Your task to perform on an android device: Open Google Chrome and open the bookmarks view Image 0: 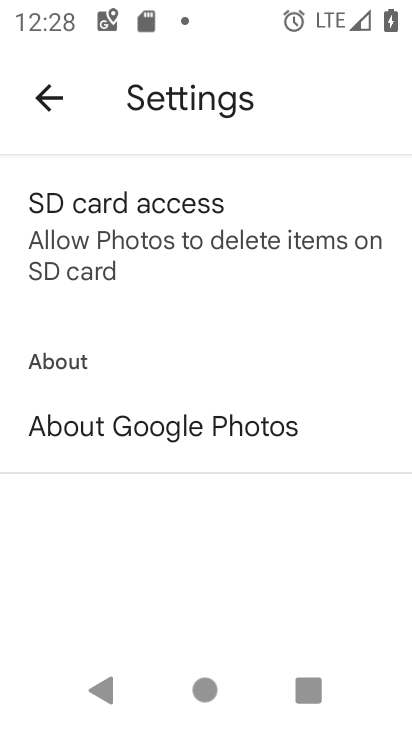
Step 0: click (397, 454)
Your task to perform on an android device: Open Google Chrome and open the bookmarks view Image 1: 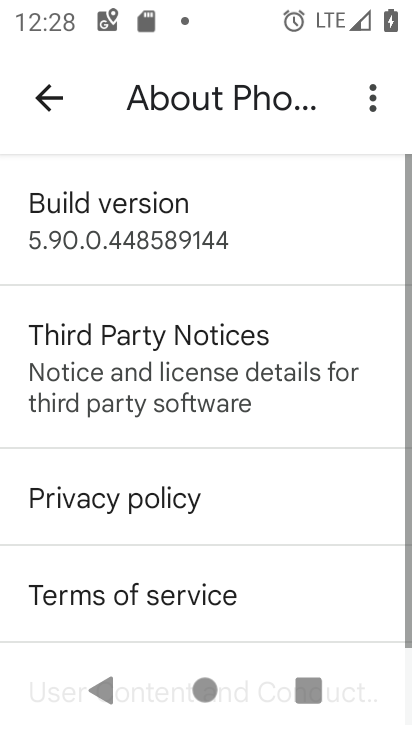
Step 1: press home button
Your task to perform on an android device: Open Google Chrome and open the bookmarks view Image 2: 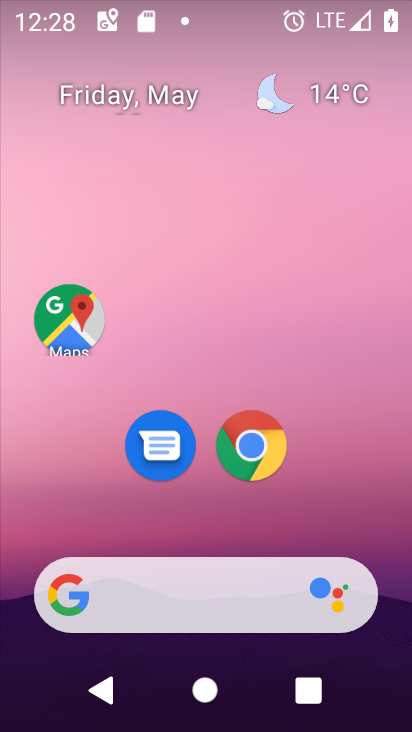
Step 2: click (273, 450)
Your task to perform on an android device: Open Google Chrome and open the bookmarks view Image 3: 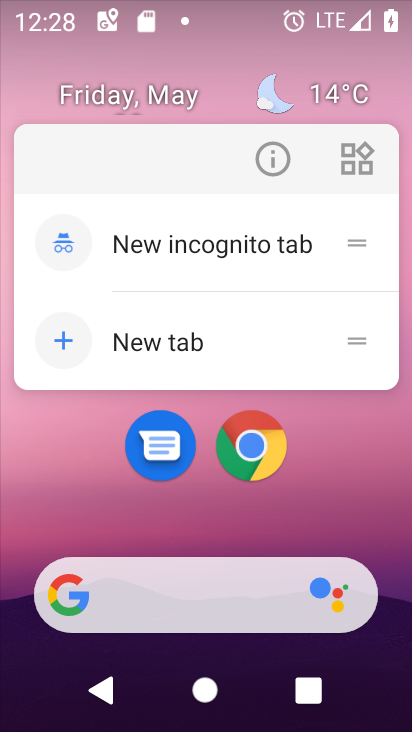
Step 3: click (241, 434)
Your task to perform on an android device: Open Google Chrome and open the bookmarks view Image 4: 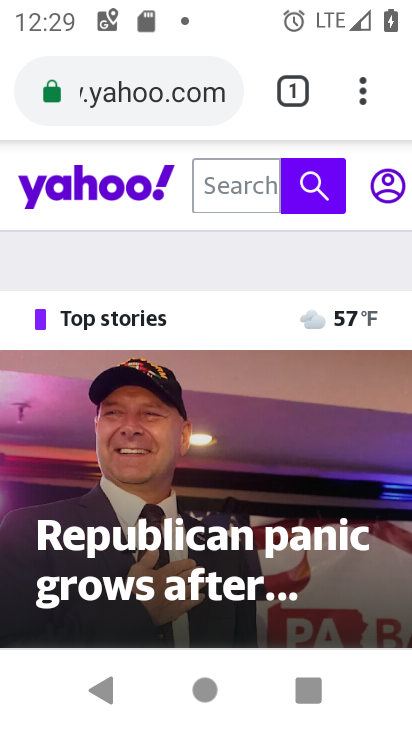
Step 4: click (363, 85)
Your task to perform on an android device: Open Google Chrome and open the bookmarks view Image 5: 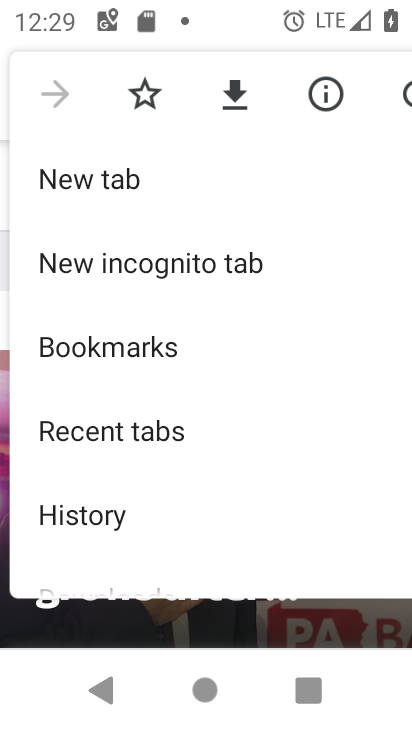
Step 5: click (56, 338)
Your task to perform on an android device: Open Google Chrome and open the bookmarks view Image 6: 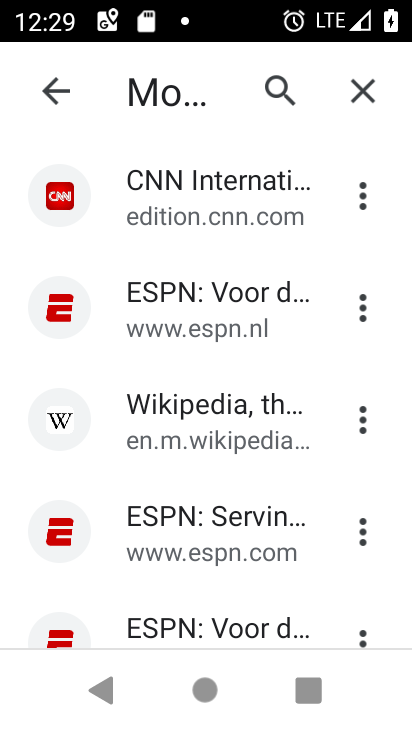
Step 6: task complete